Your task to perform on an android device: manage bookmarks in the chrome app Image 0: 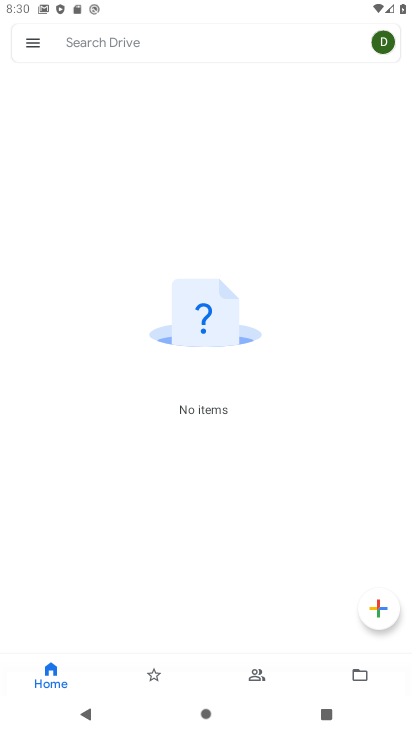
Step 0: press home button
Your task to perform on an android device: manage bookmarks in the chrome app Image 1: 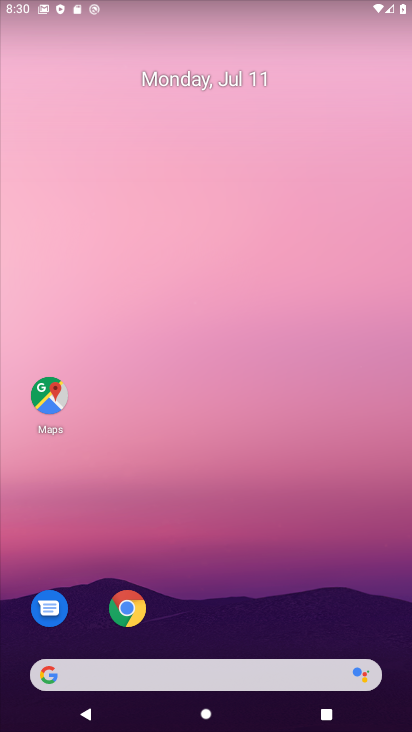
Step 1: click (126, 623)
Your task to perform on an android device: manage bookmarks in the chrome app Image 2: 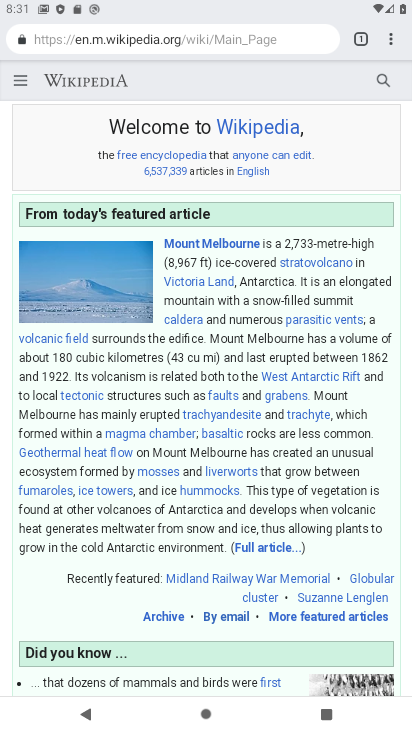
Step 2: click (392, 42)
Your task to perform on an android device: manage bookmarks in the chrome app Image 3: 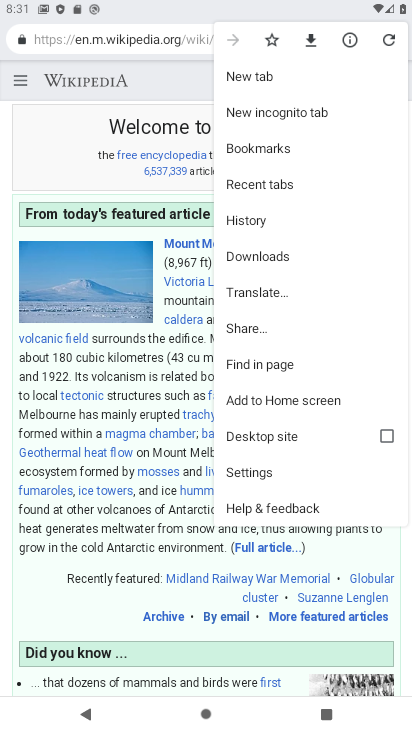
Step 3: click (271, 141)
Your task to perform on an android device: manage bookmarks in the chrome app Image 4: 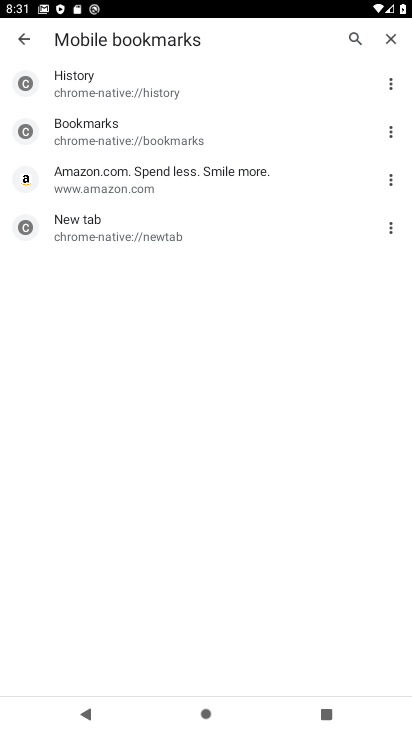
Step 4: click (206, 130)
Your task to perform on an android device: manage bookmarks in the chrome app Image 5: 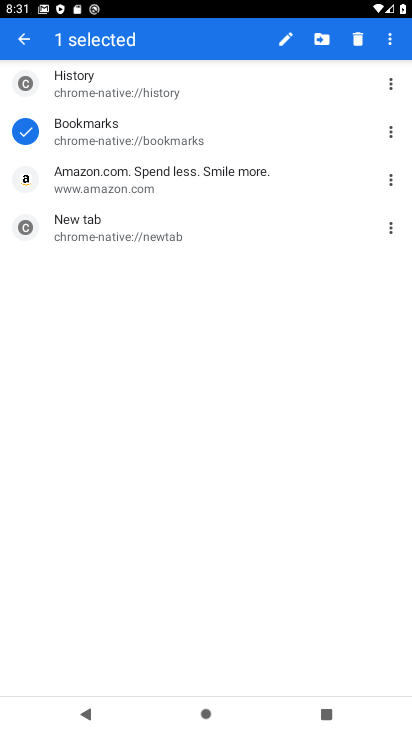
Step 5: click (87, 197)
Your task to perform on an android device: manage bookmarks in the chrome app Image 6: 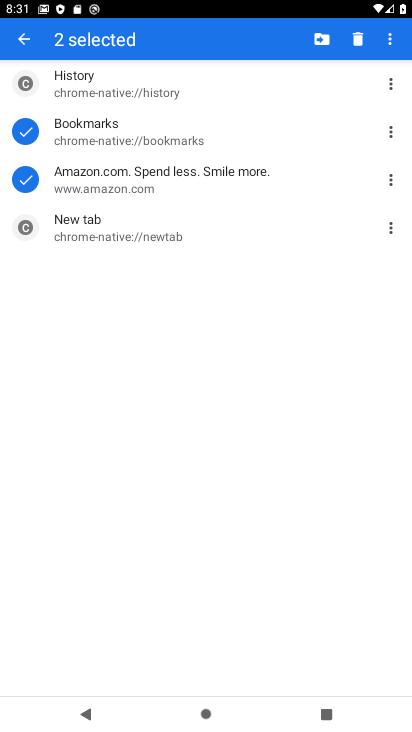
Step 6: click (318, 36)
Your task to perform on an android device: manage bookmarks in the chrome app Image 7: 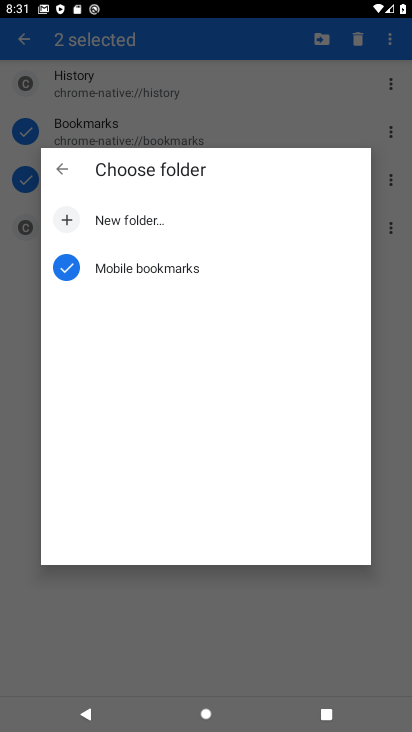
Step 7: click (128, 220)
Your task to perform on an android device: manage bookmarks in the chrome app Image 8: 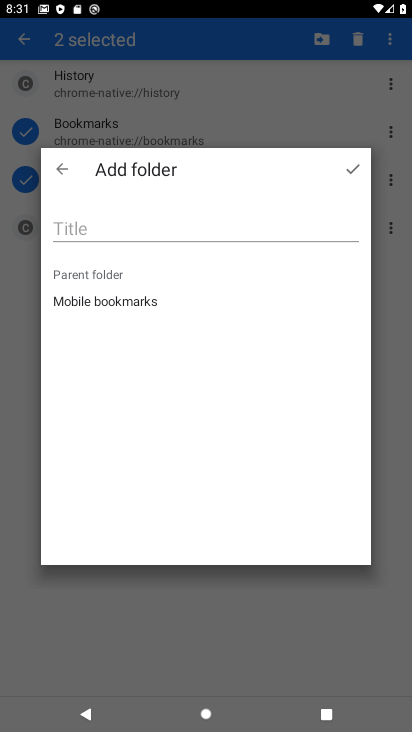
Step 8: click (140, 223)
Your task to perform on an android device: manage bookmarks in the chrome app Image 9: 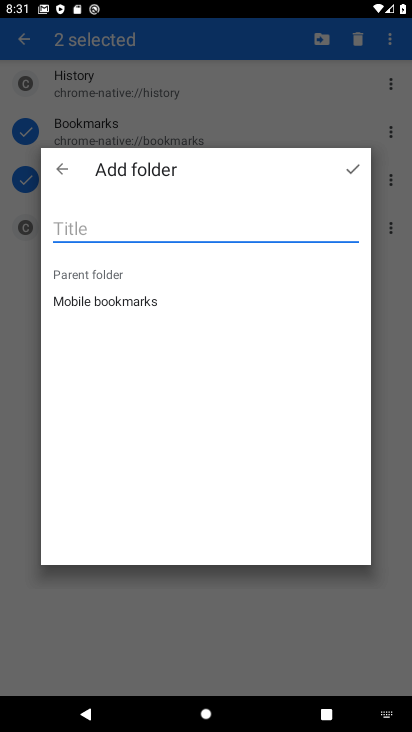
Step 9: type "fff"
Your task to perform on an android device: manage bookmarks in the chrome app Image 10: 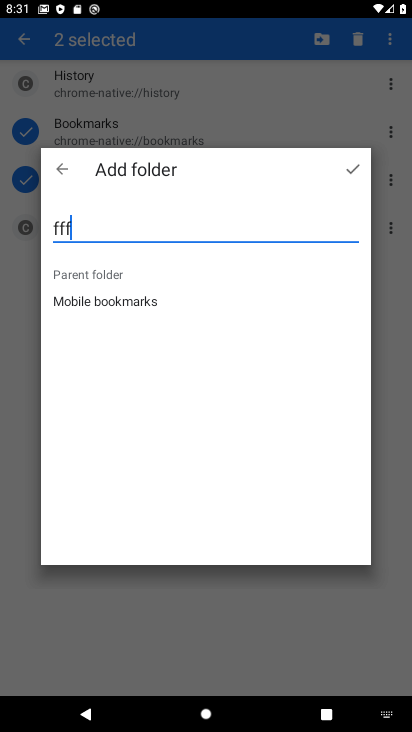
Step 10: type ""
Your task to perform on an android device: manage bookmarks in the chrome app Image 11: 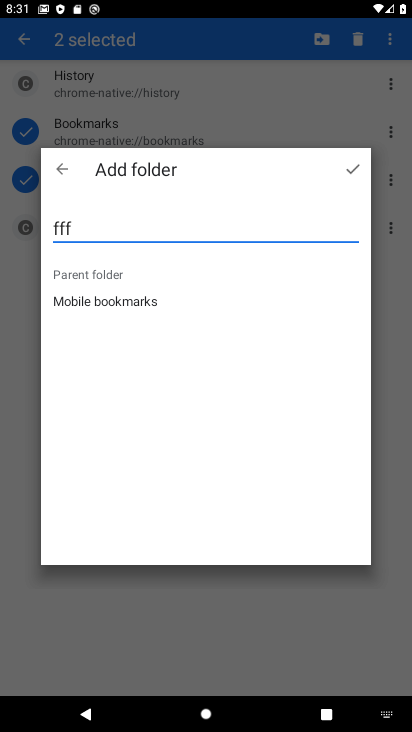
Step 11: click (353, 171)
Your task to perform on an android device: manage bookmarks in the chrome app Image 12: 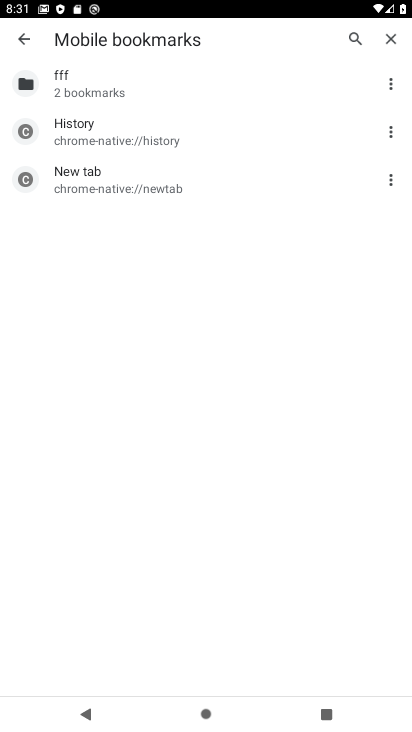
Step 12: task complete